Your task to perform on an android device: change the clock display to digital Image 0: 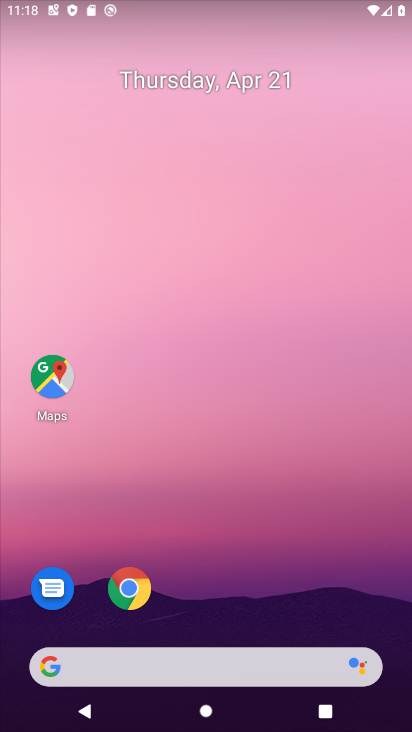
Step 0: drag from (189, 627) to (243, 72)
Your task to perform on an android device: change the clock display to digital Image 1: 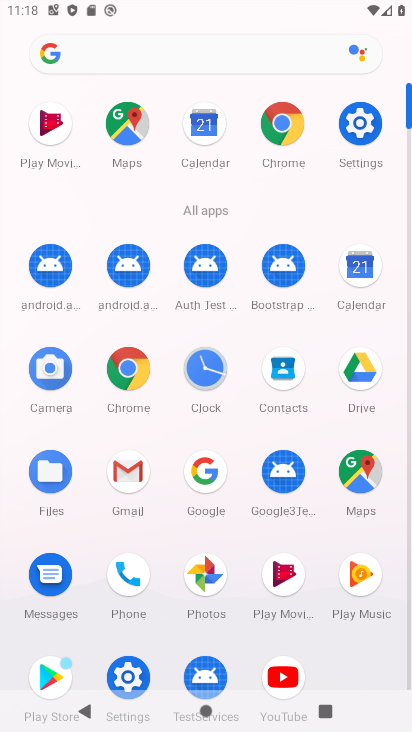
Step 1: click (206, 375)
Your task to perform on an android device: change the clock display to digital Image 2: 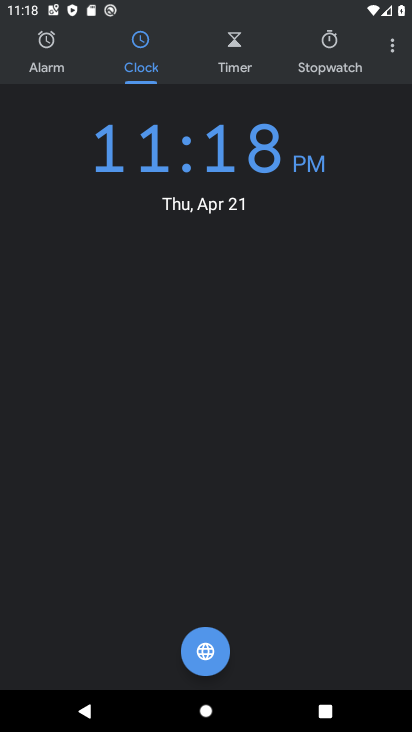
Step 2: click (397, 51)
Your task to perform on an android device: change the clock display to digital Image 3: 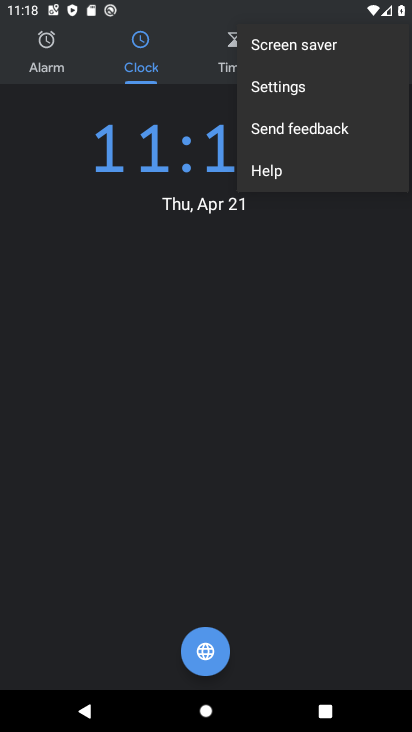
Step 3: click (269, 81)
Your task to perform on an android device: change the clock display to digital Image 4: 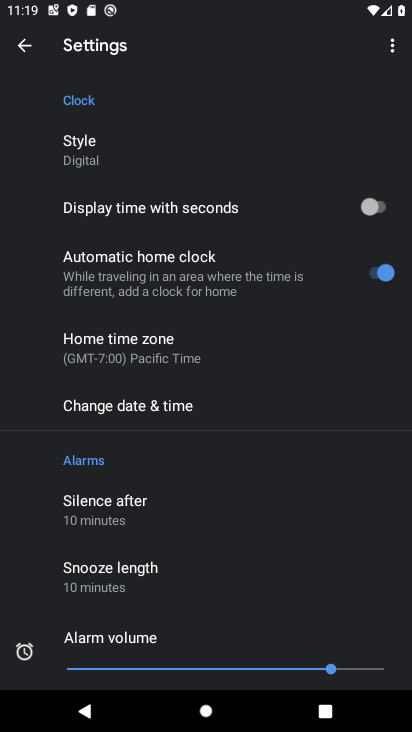
Step 4: click (126, 147)
Your task to perform on an android device: change the clock display to digital Image 5: 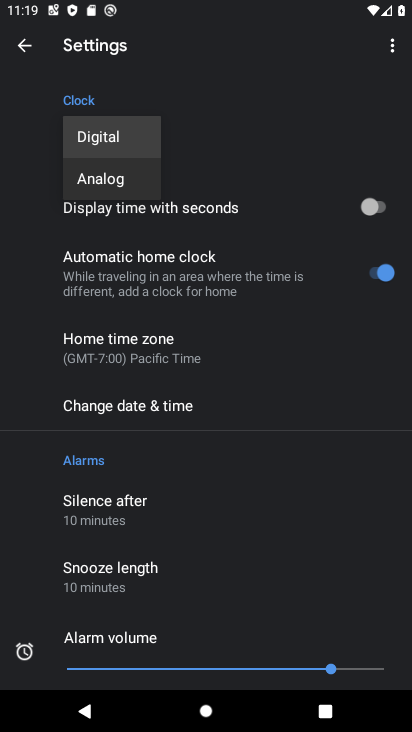
Step 5: task complete